Your task to perform on an android device: Go to settings Image 0: 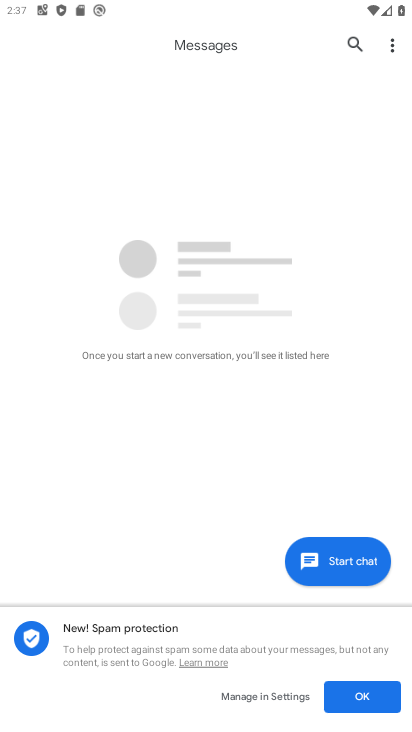
Step 0: press home button
Your task to perform on an android device: Go to settings Image 1: 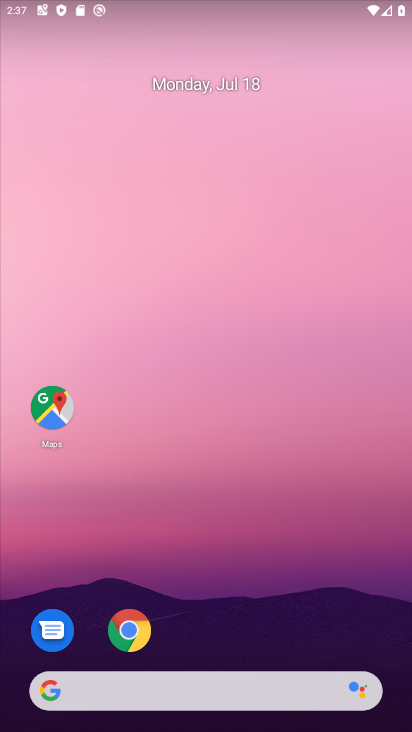
Step 1: drag from (381, 616) to (318, 3)
Your task to perform on an android device: Go to settings Image 2: 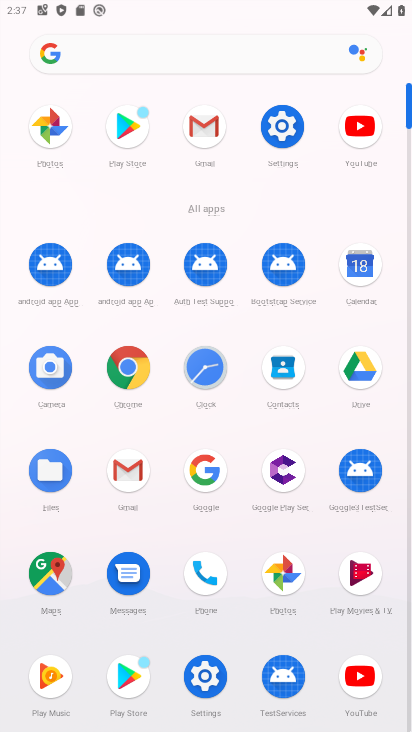
Step 2: click (205, 677)
Your task to perform on an android device: Go to settings Image 3: 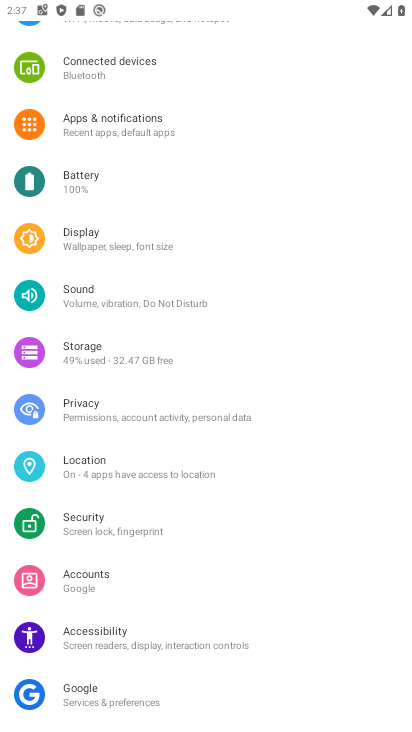
Step 3: task complete